Your task to perform on an android device: Open the web browser Image 0: 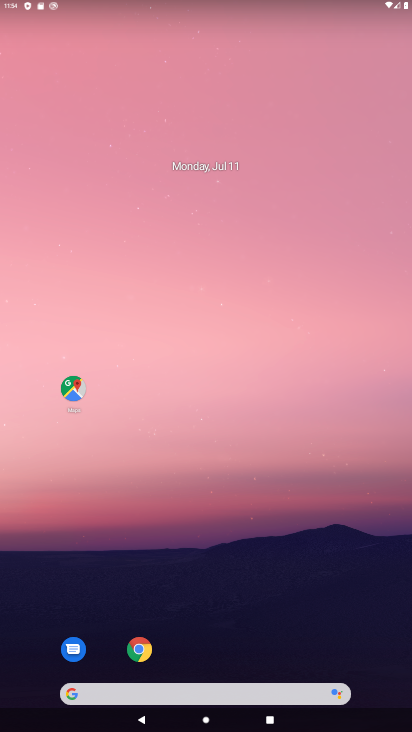
Step 0: click (145, 645)
Your task to perform on an android device: Open the web browser Image 1: 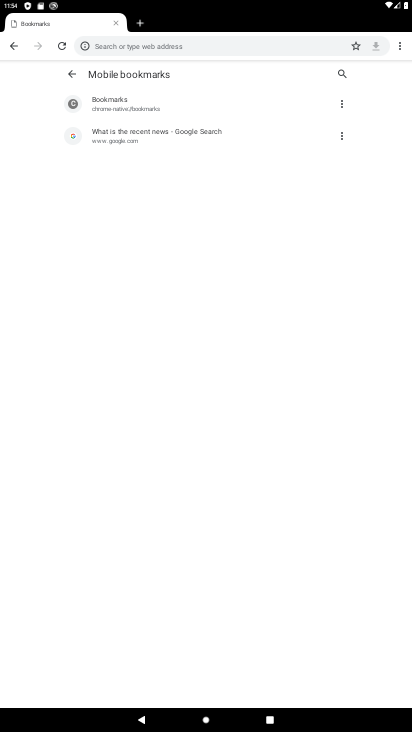
Step 1: task complete